Your task to perform on an android device: turn off data saver in the chrome app Image 0: 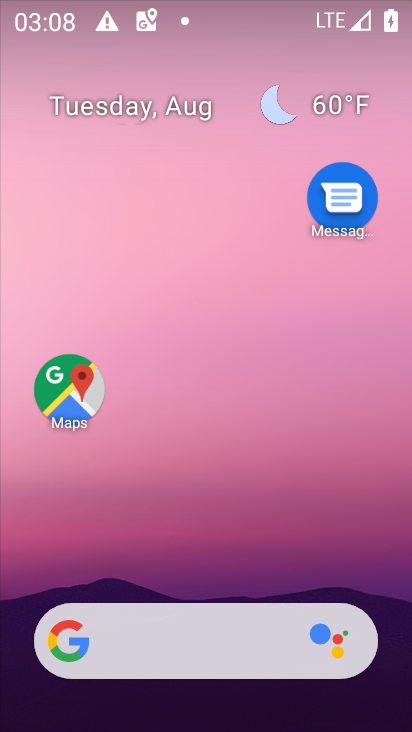
Step 0: drag from (280, 580) to (229, 106)
Your task to perform on an android device: turn off data saver in the chrome app Image 1: 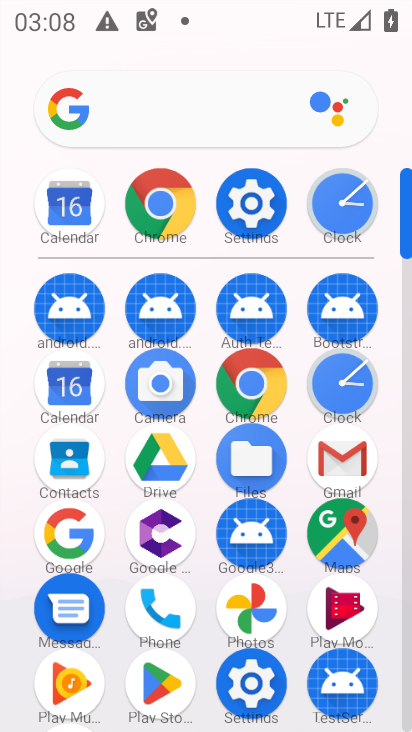
Step 1: click (165, 198)
Your task to perform on an android device: turn off data saver in the chrome app Image 2: 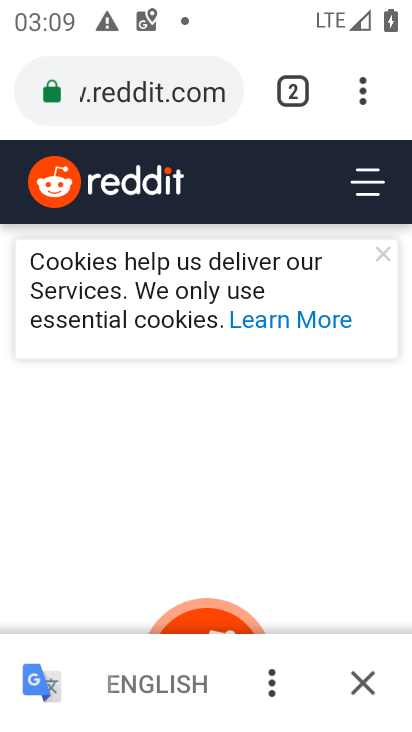
Step 2: click (347, 82)
Your task to perform on an android device: turn off data saver in the chrome app Image 3: 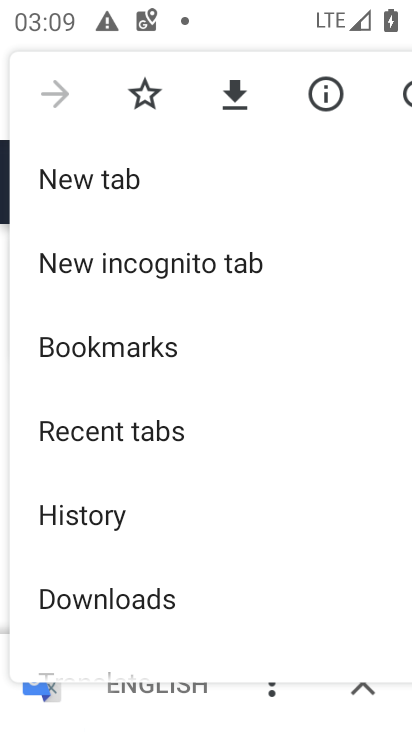
Step 3: drag from (195, 566) to (175, 268)
Your task to perform on an android device: turn off data saver in the chrome app Image 4: 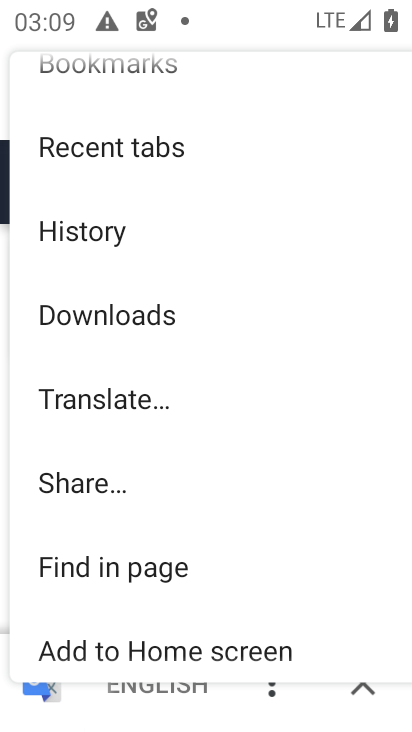
Step 4: drag from (153, 460) to (153, 183)
Your task to perform on an android device: turn off data saver in the chrome app Image 5: 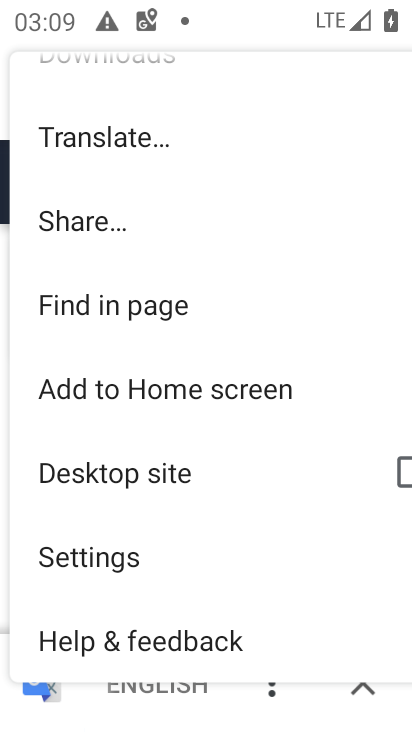
Step 5: click (157, 548)
Your task to perform on an android device: turn off data saver in the chrome app Image 6: 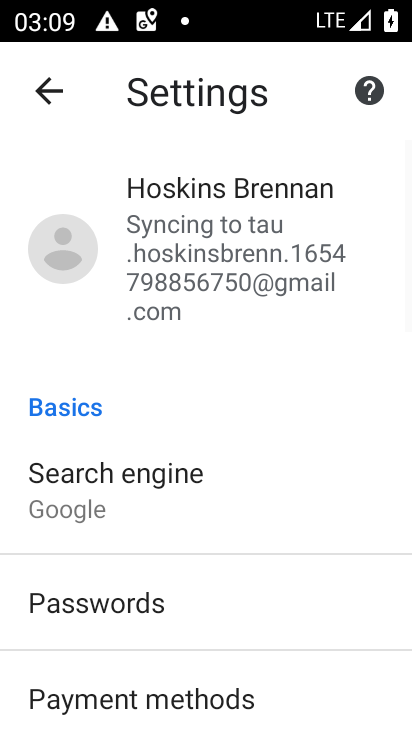
Step 6: drag from (185, 601) to (201, 259)
Your task to perform on an android device: turn off data saver in the chrome app Image 7: 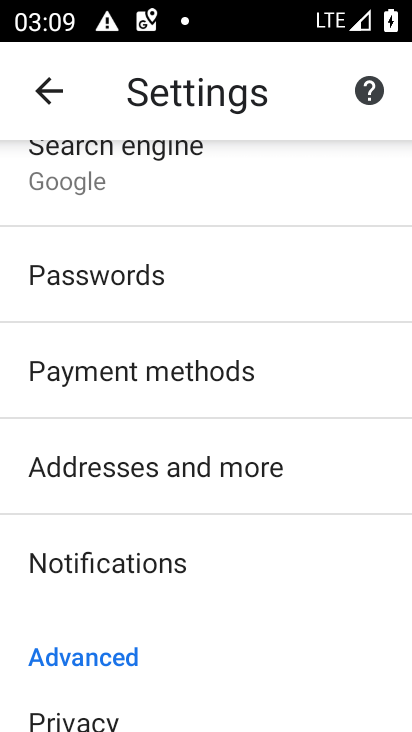
Step 7: drag from (209, 593) to (218, 266)
Your task to perform on an android device: turn off data saver in the chrome app Image 8: 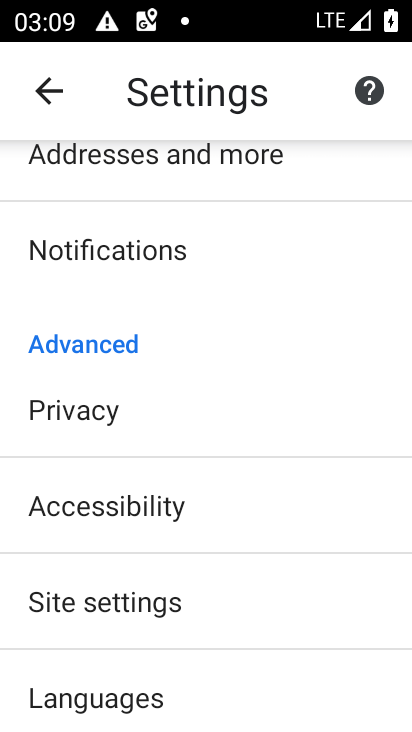
Step 8: click (219, 605)
Your task to perform on an android device: turn off data saver in the chrome app Image 9: 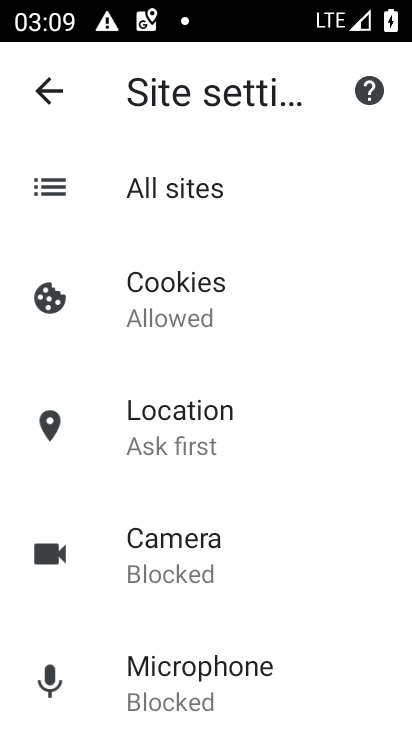
Step 9: task complete